Your task to perform on an android device: Open the calendar and show me this week's events? Image 0: 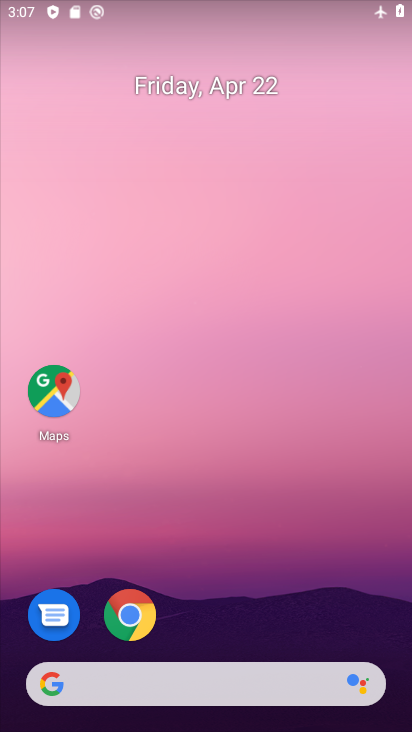
Step 0: drag from (209, 666) to (247, 453)
Your task to perform on an android device: Open the calendar and show me this week's events? Image 1: 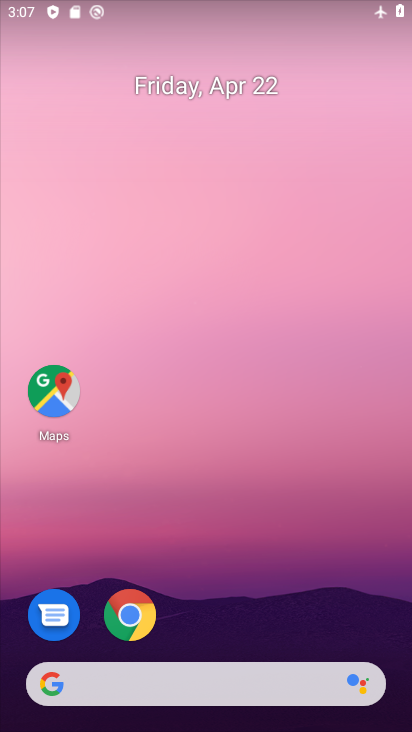
Step 1: drag from (221, 661) to (219, 321)
Your task to perform on an android device: Open the calendar and show me this week's events? Image 2: 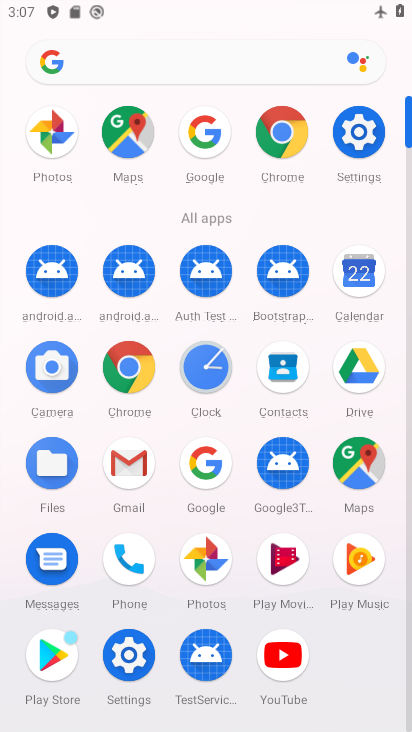
Step 2: click (361, 271)
Your task to perform on an android device: Open the calendar and show me this week's events? Image 3: 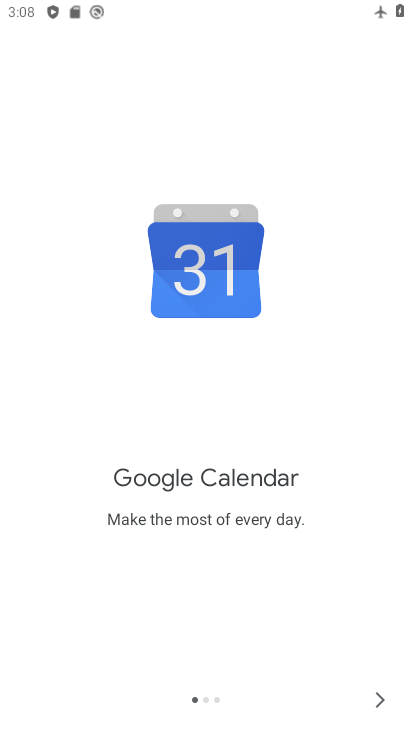
Step 3: click (376, 704)
Your task to perform on an android device: Open the calendar and show me this week's events? Image 4: 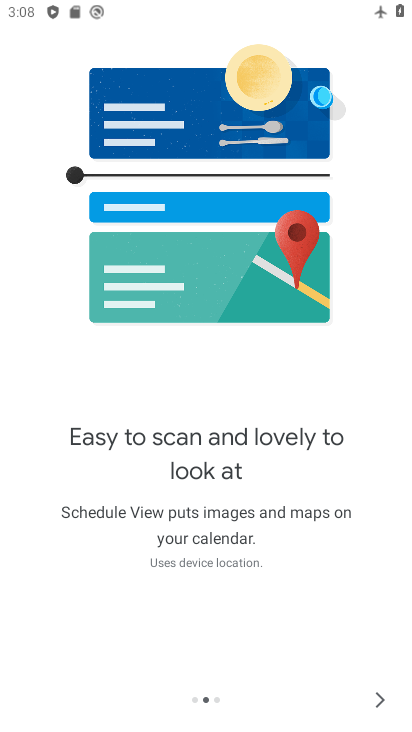
Step 4: click (376, 704)
Your task to perform on an android device: Open the calendar and show me this week's events? Image 5: 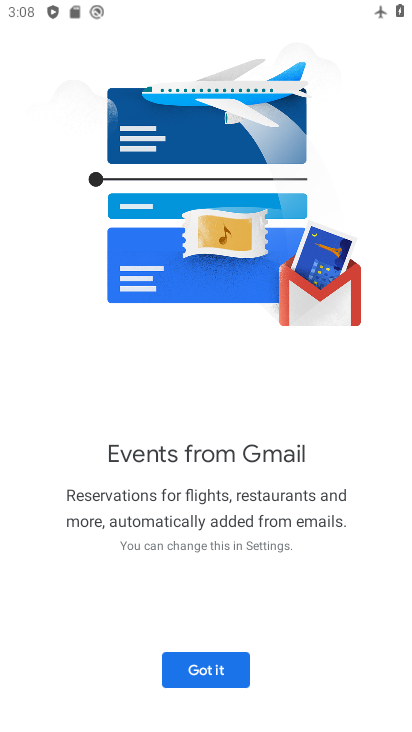
Step 5: click (215, 671)
Your task to perform on an android device: Open the calendar and show me this week's events? Image 6: 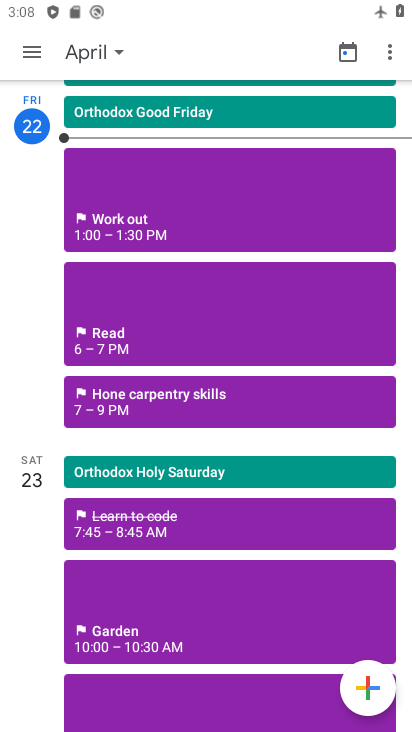
Step 6: click (70, 50)
Your task to perform on an android device: Open the calendar and show me this week's events? Image 7: 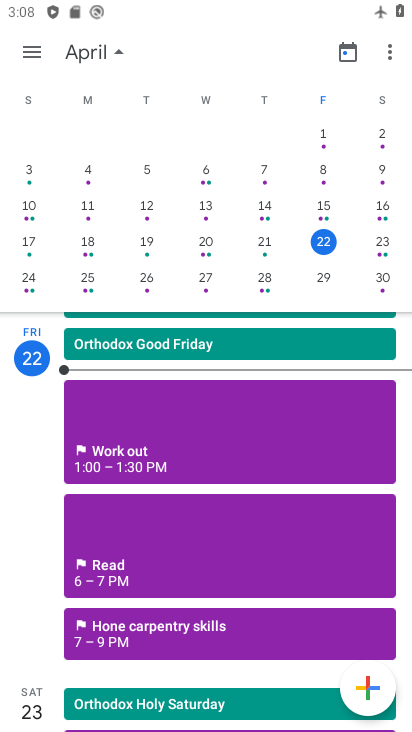
Step 7: drag from (26, 244) to (400, 231)
Your task to perform on an android device: Open the calendar and show me this week's events? Image 8: 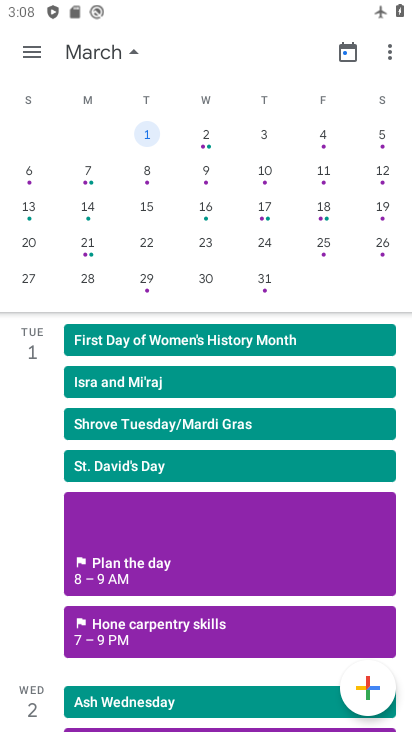
Step 8: drag from (336, 246) to (2, 277)
Your task to perform on an android device: Open the calendar and show me this week's events? Image 9: 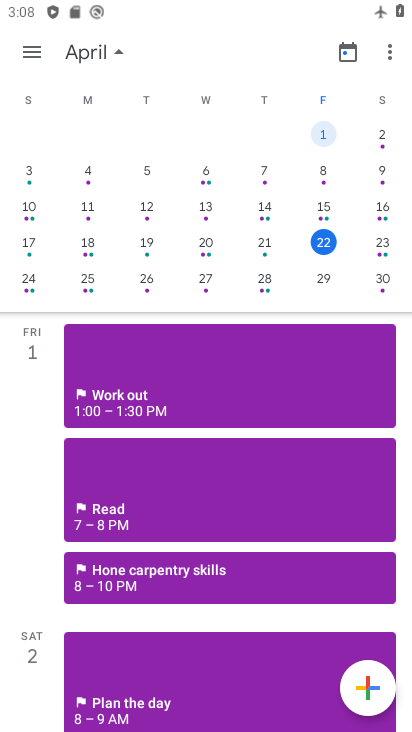
Step 9: click (24, 51)
Your task to perform on an android device: Open the calendar and show me this week's events? Image 10: 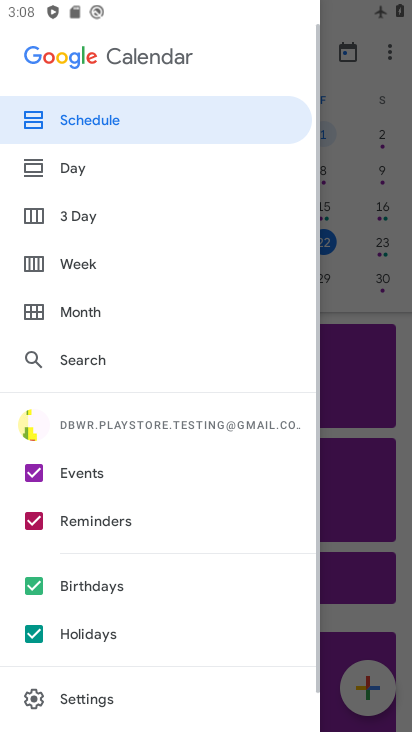
Step 10: click (90, 118)
Your task to perform on an android device: Open the calendar and show me this week's events? Image 11: 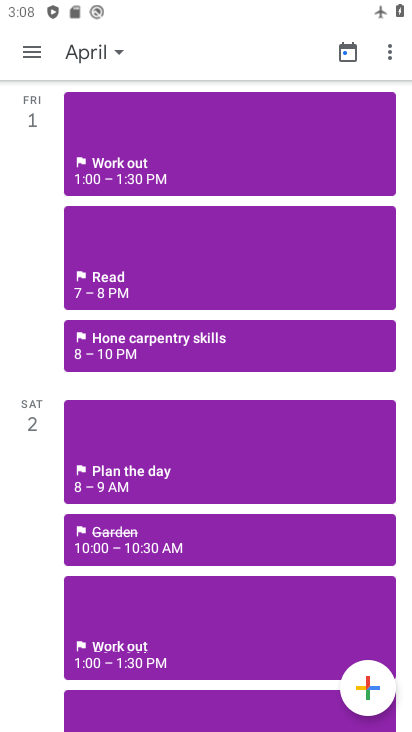
Step 11: drag from (200, 471) to (182, 234)
Your task to perform on an android device: Open the calendar and show me this week's events? Image 12: 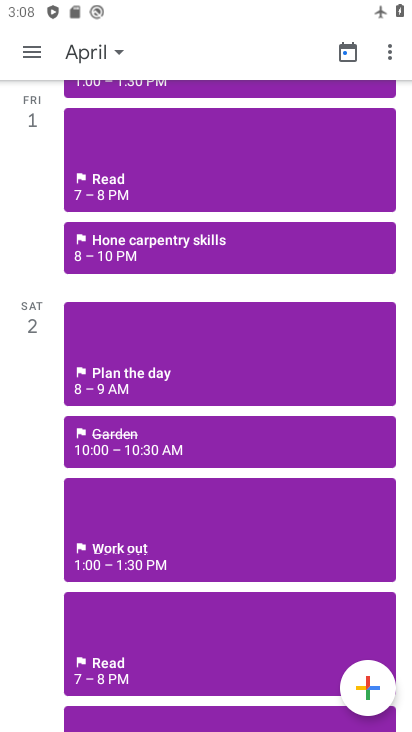
Step 12: drag from (216, 519) to (176, 163)
Your task to perform on an android device: Open the calendar and show me this week's events? Image 13: 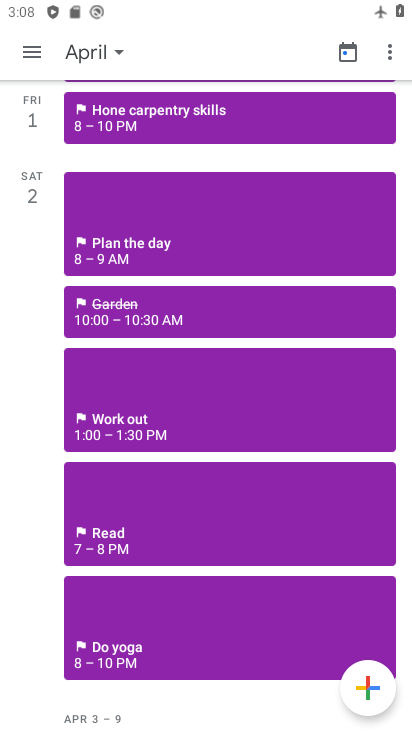
Step 13: click (80, 56)
Your task to perform on an android device: Open the calendar and show me this week's events? Image 14: 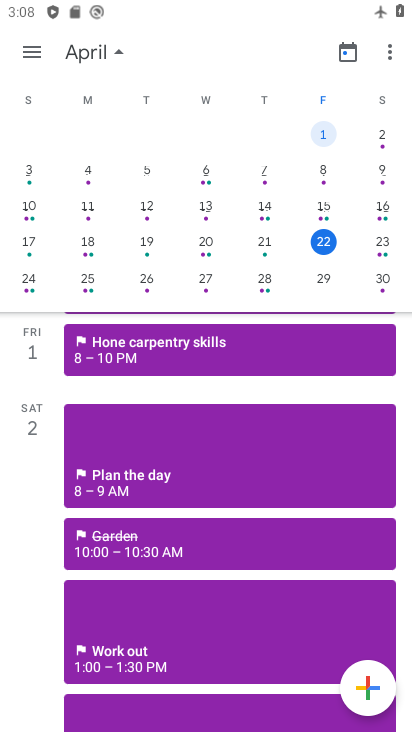
Step 14: click (324, 243)
Your task to perform on an android device: Open the calendar and show me this week's events? Image 15: 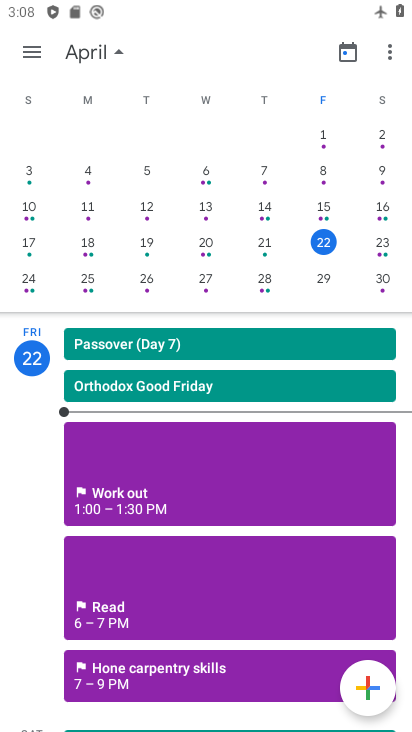
Step 15: task complete